Your task to perform on an android device: check google app version Image 0: 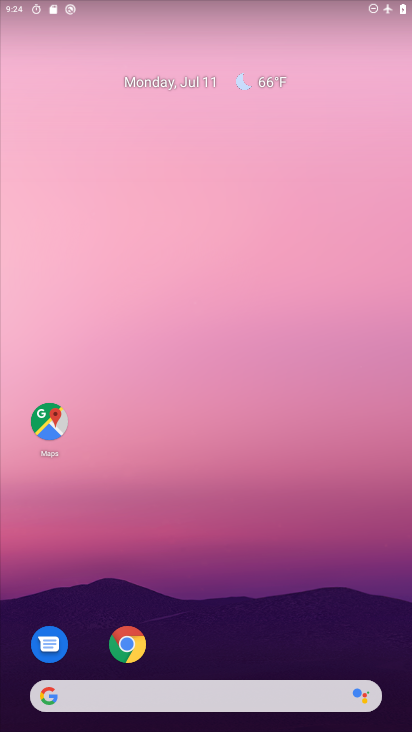
Step 0: drag from (296, 618) to (261, 147)
Your task to perform on an android device: check google app version Image 1: 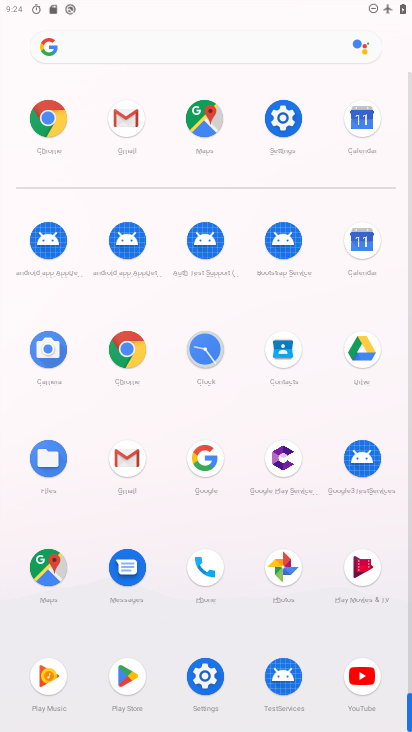
Step 1: click (215, 461)
Your task to perform on an android device: check google app version Image 2: 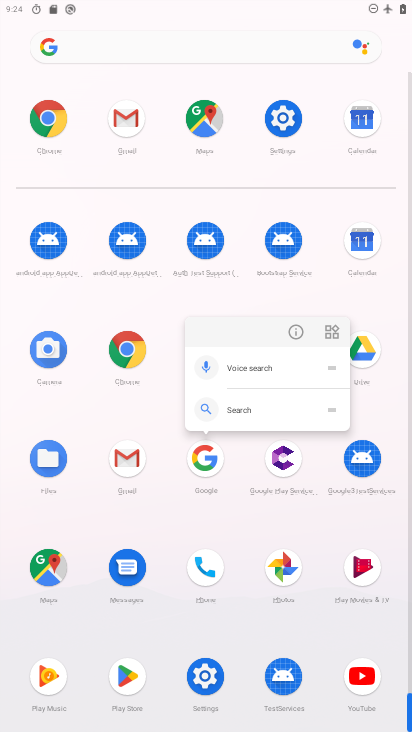
Step 2: click (294, 330)
Your task to perform on an android device: check google app version Image 3: 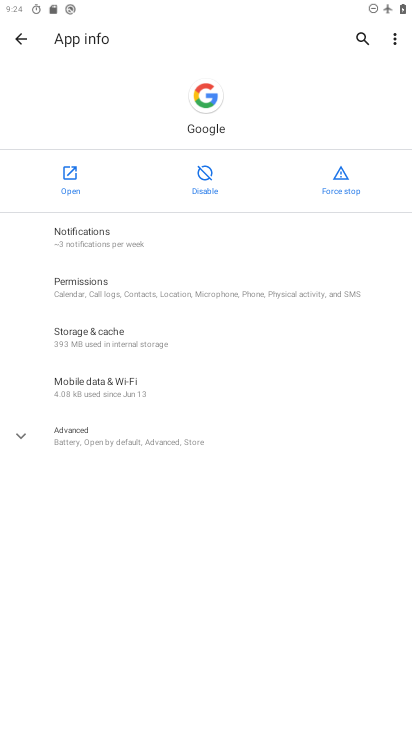
Step 3: click (95, 451)
Your task to perform on an android device: check google app version Image 4: 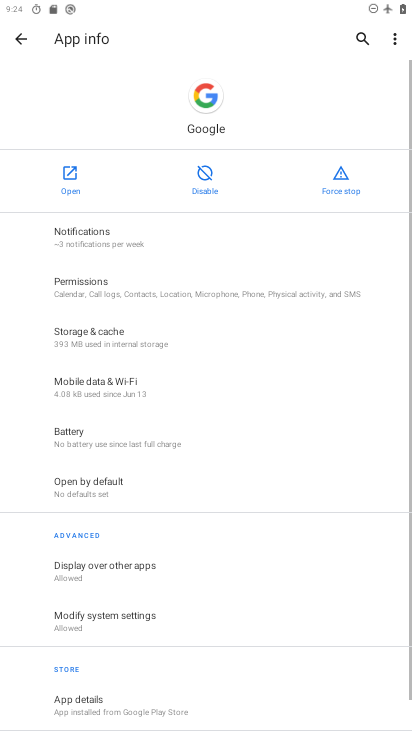
Step 4: task complete